Your task to perform on an android device: toggle show notifications on the lock screen Image 0: 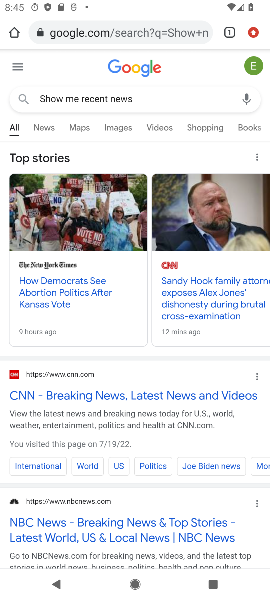
Step 0: press home button
Your task to perform on an android device: toggle show notifications on the lock screen Image 1: 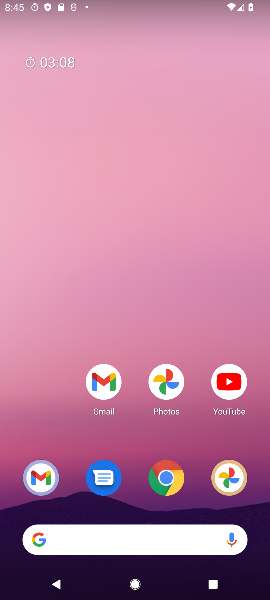
Step 1: drag from (152, 571) to (192, 302)
Your task to perform on an android device: toggle show notifications on the lock screen Image 2: 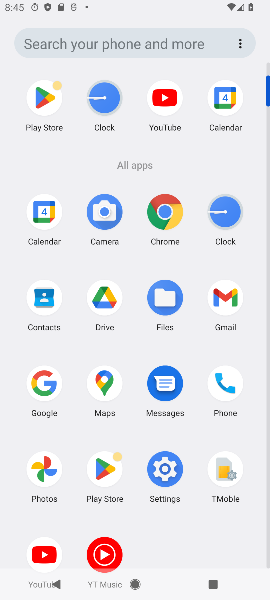
Step 2: click (151, 479)
Your task to perform on an android device: toggle show notifications on the lock screen Image 3: 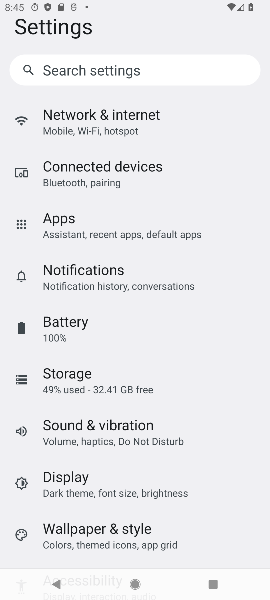
Step 3: click (93, 287)
Your task to perform on an android device: toggle show notifications on the lock screen Image 4: 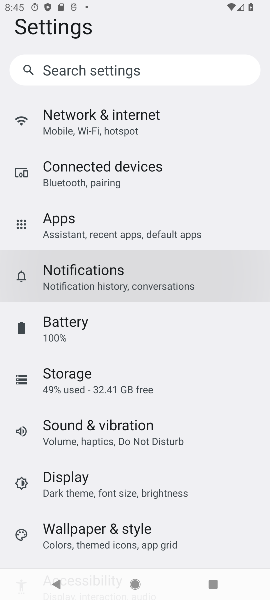
Step 4: drag from (117, 461) to (128, 137)
Your task to perform on an android device: toggle show notifications on the lock screen Image 5: 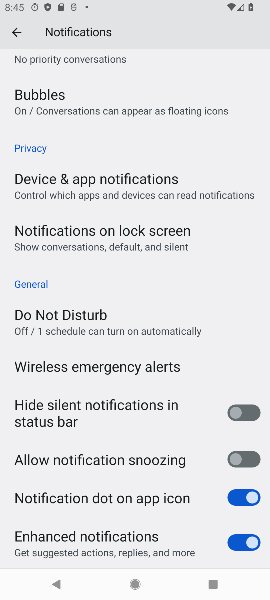
Step 5: click (112, 232)
Your task to perform on an android device: toggle show notifications on the lock screen Image 6: 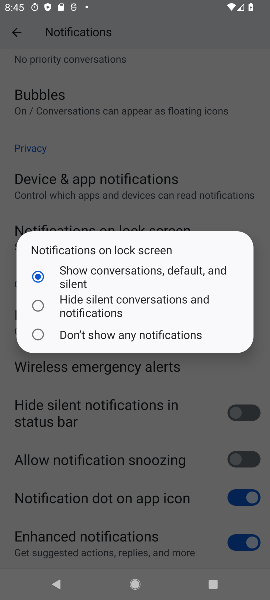
Step 6: click (97, 302)
Your task to perform on an android device: toggle show notifications on the lock screen Image 7: 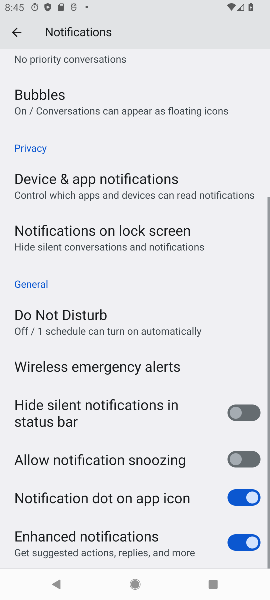
Step 7: task complete